Your task to perform on an android device: turn on bluetooth scan Image 0: 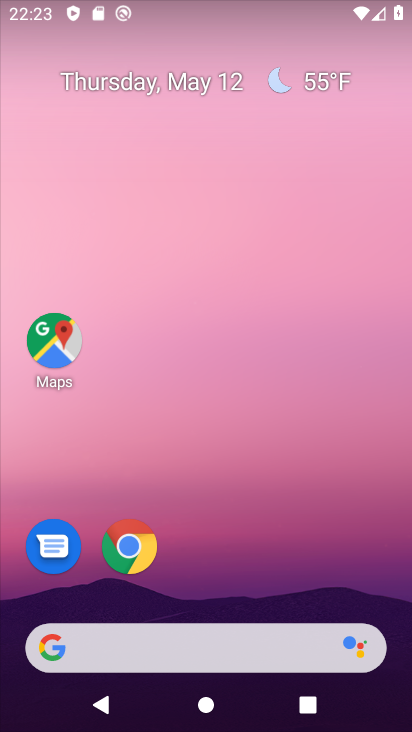
Step 0: drag from (173, 590) to (183, 181)
Your task to perform on an android device: turn on bluetooth scan Image 1: 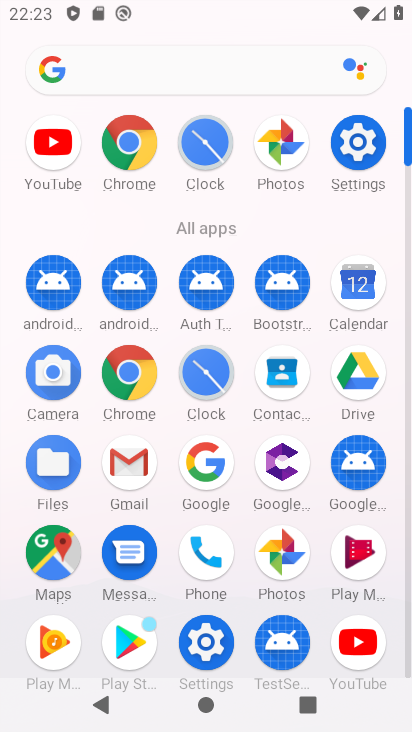
Step 1: click (359, 142)
Your task to perform on an android device: turn on bluetooth scan Image 2: 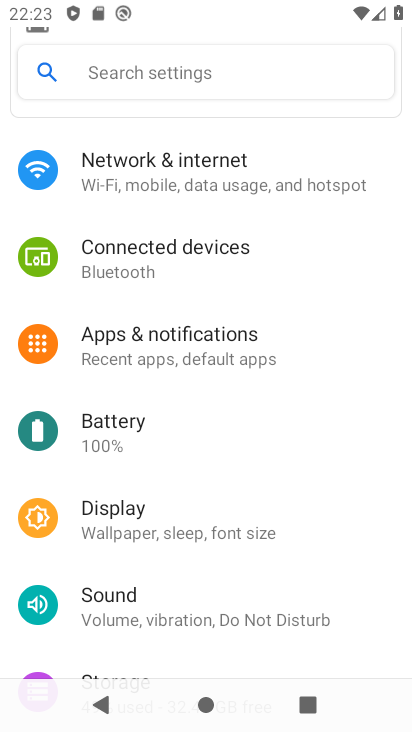
Step 2: drag from (183, 575) to (248, 202)
Your task to perform on an android device: turn on bluetooth scan Image 3: 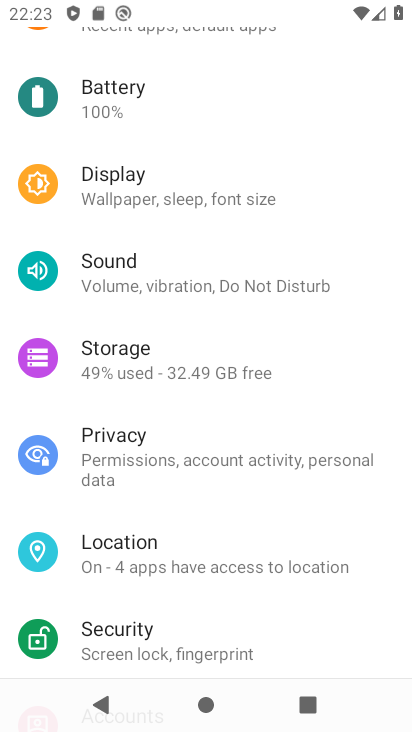
Step 3: click (208, 560)
Your task to perform on an android device: turn on bluetooth scan Image 4: 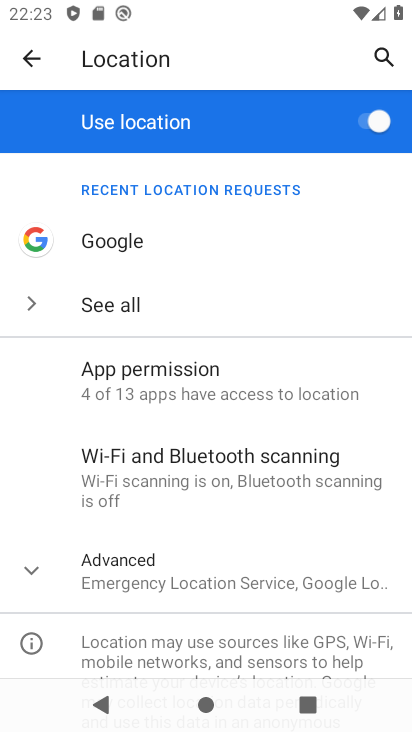
Step 4: click (220, 459)
Your task to perform on an android device: turn on bluetooth scan Image 5: 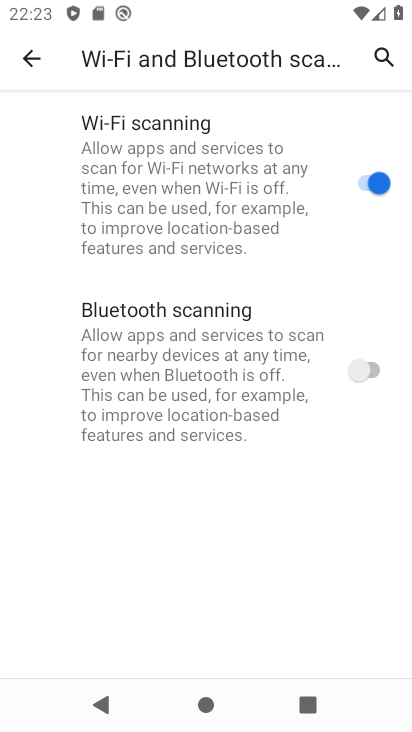
Step 5: click (372, 369)
Your task to perform on an android device: turn on bluetooth scan Image 6: 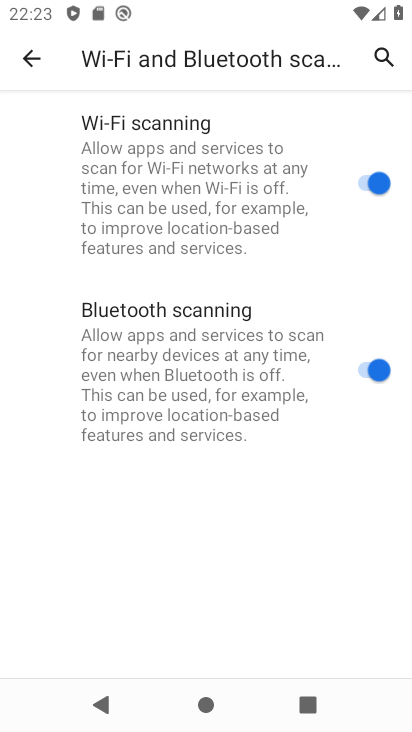
Step 6: task complete